Your task to perform on an android device: make emails show in primary in the gmail app Image 0: 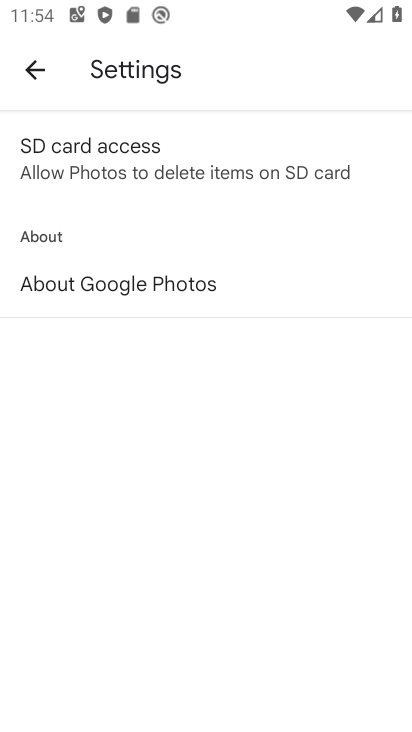
Step 0: press home button
Your task to perform on an android device: make emails show in primary in the gmail app Image 1: 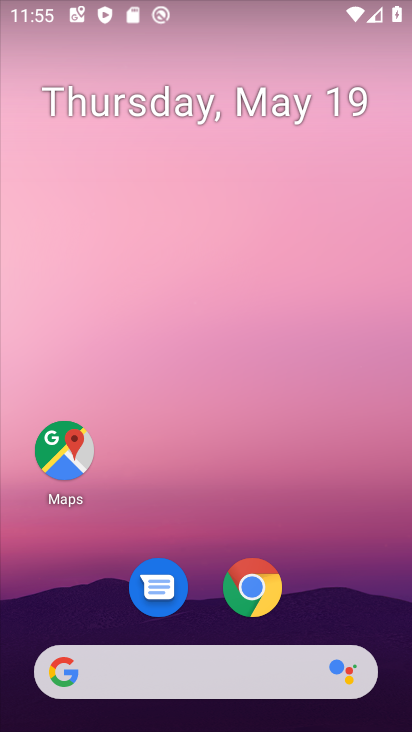
Step 1: drag from (245, 677) to (248, 137)
Your task to perform on an android device: make emails show in primary in the gmail app Image 2: 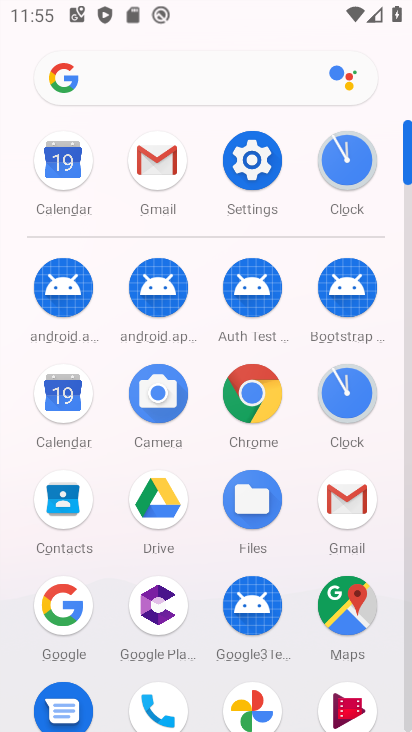
Step 2: click (335, 491)
Your task to perform on an android device: make emails show in primary in the gmail app Image 3: 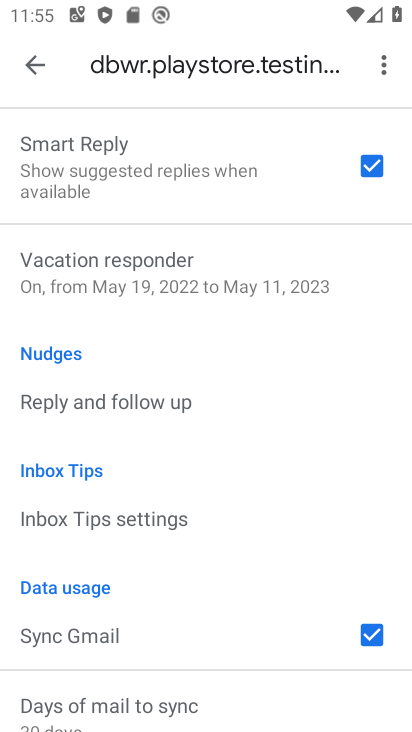
Step 3: click (42, 73)
Your task to perform on an android device: make emails show in primary in the gmail app Image 4: 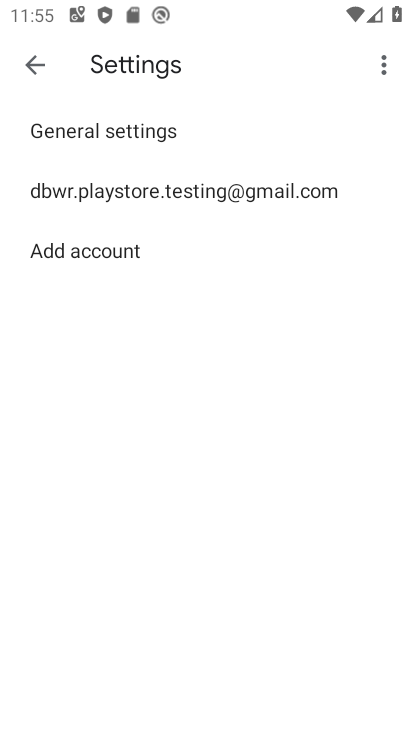
Step 4: click (107, 185)
Your task to perform on an android device: make emails show in primary in the gmail app Image 5: 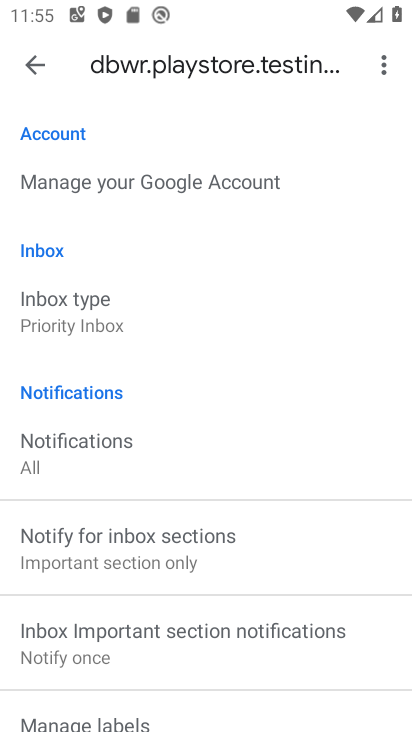
Step 5: click (62, 307)
Your task to perform on an android device: make emails show in primary in the gmail app Image 6: 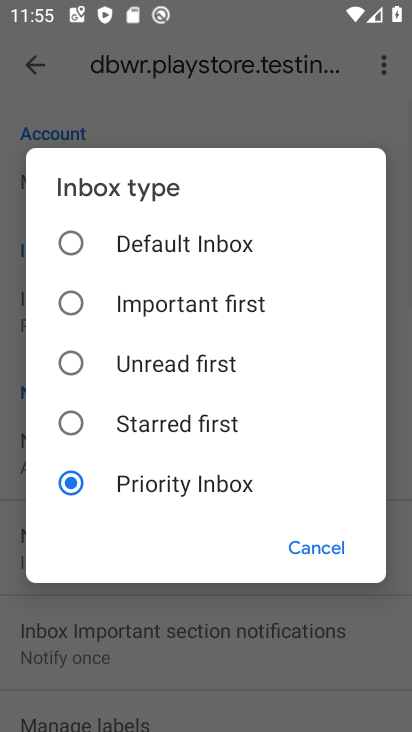
Step 6: click (73, 245)
Your task to perform on an android device: make emails show in primary in the gmail app Image 7: 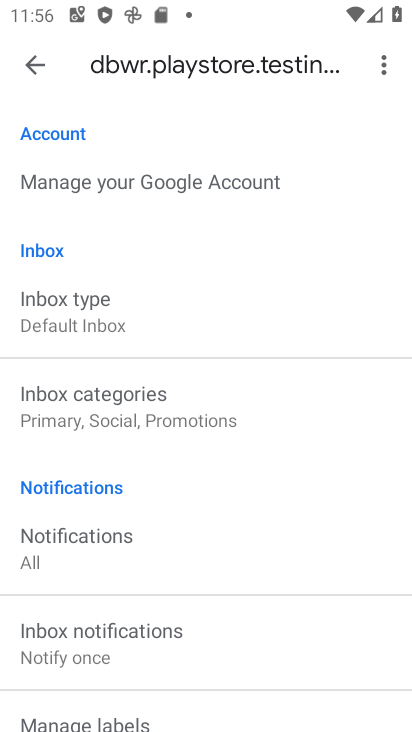
Step 7: click (124, 397)
Your task to perform on an android device: make emails show in primary in the gmail app Image 8: 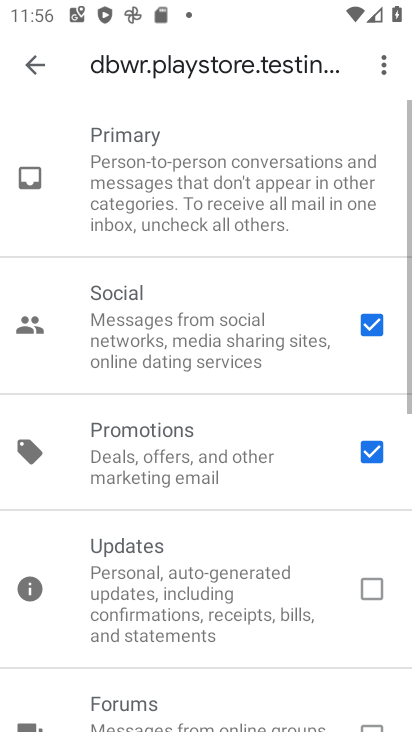
Step 8: click (367, 448)
Your task to perform on an android device: make emails show in primary in the gmail app Image 9: 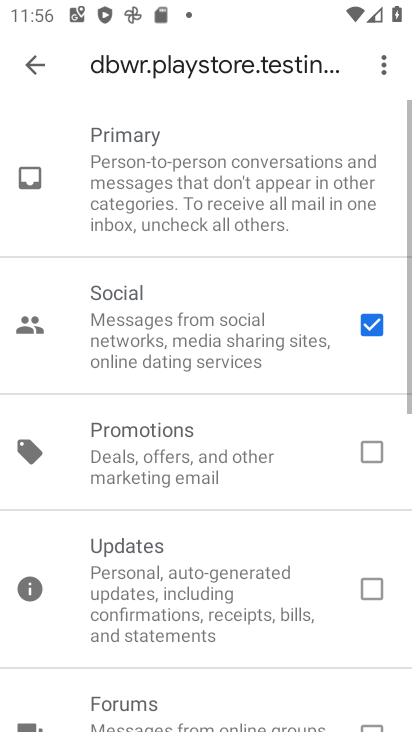
Step 9: click (366, 324)
Your task to perform on an android device: make emails show in primary in the gmail app Image 10: 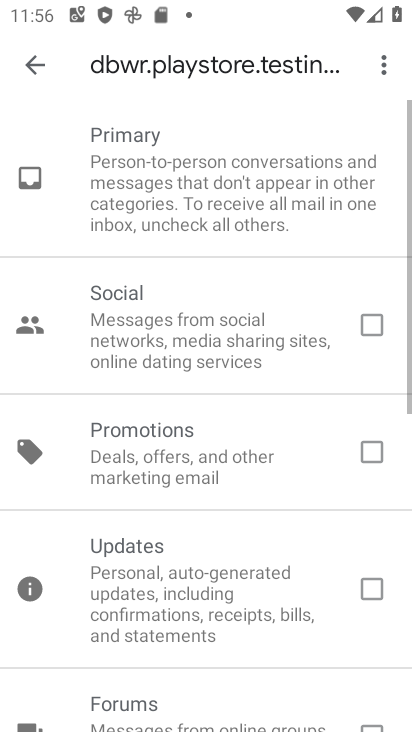
Step 10: task complete